Your task to perform on an android device: Go to calendar. Show me events next week Image 0: 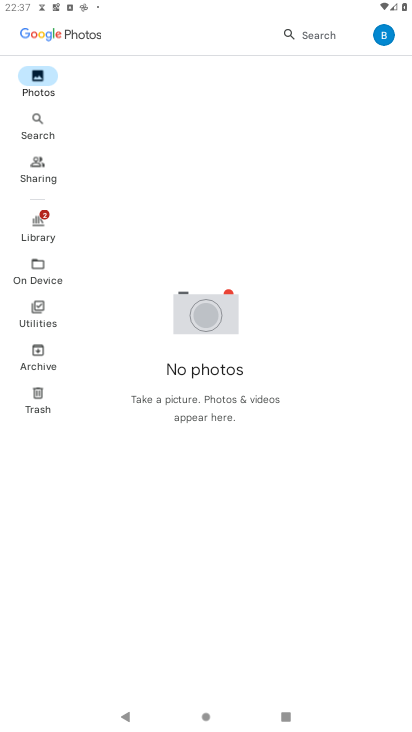
Step 0: press back button
Your task to perform on an android device: Go to calendar. Show me events next week Image 1: 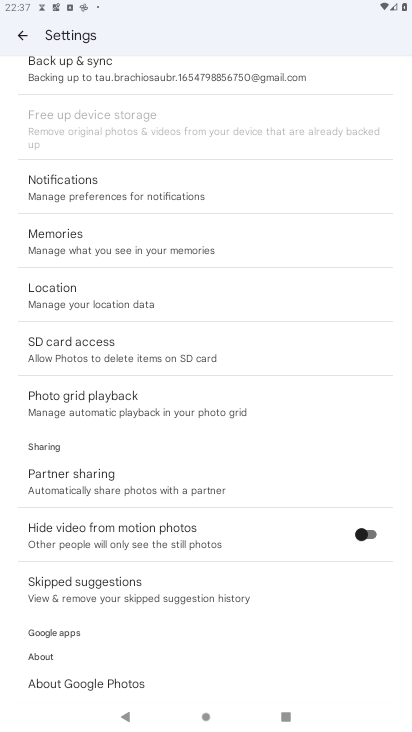
Step 1: press back button
Your task to perform on an android device: Go to calendar. Show me events next week Image 2: 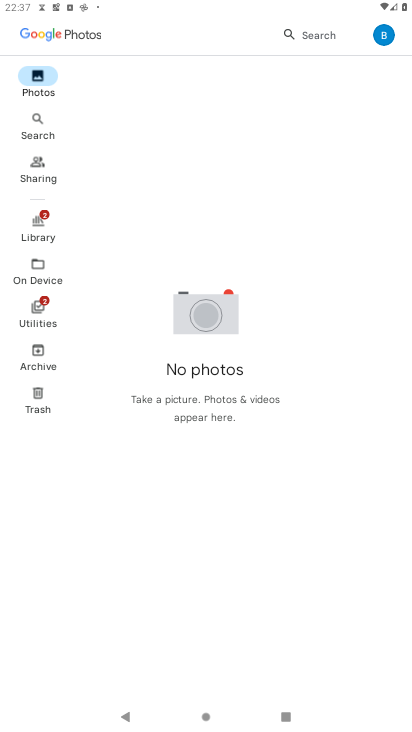
Step 2: press home button
Your task to perform on an android device: Go to calendar. Show me events next week Image 3: 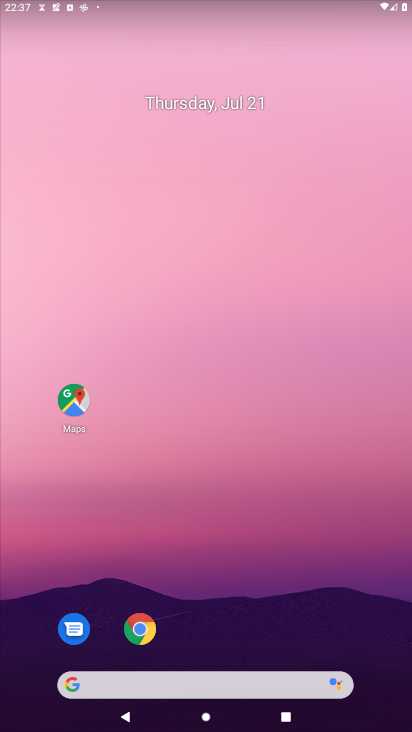
Step 3: drag from (219, 615) to (195, 121)
Your task to perform on an android device: Go to calendar. Show me events next week Image 4: 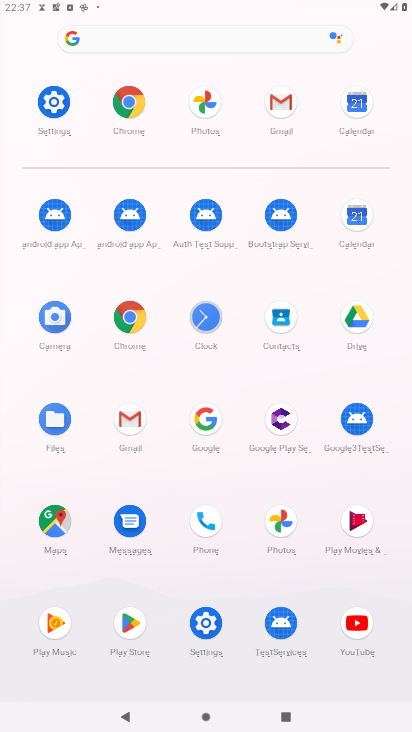
Step 4: click (362, 231)
Your task to perform on an android device: Go to calendar. Show me events next week Image 5: 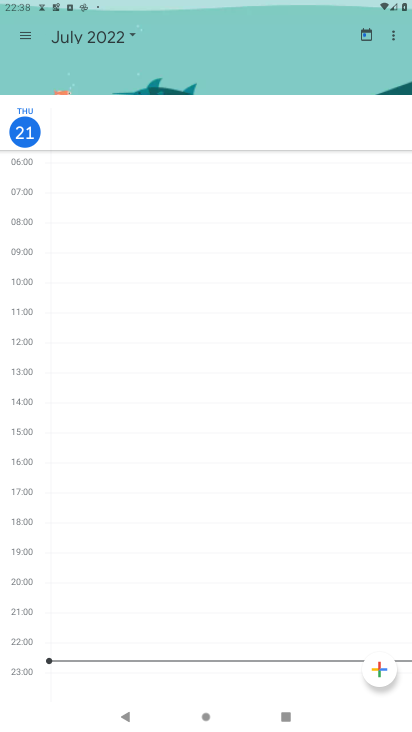
Step 5: click (98, 39)
Your task to perform on an android device: Go to calendar. Show me events next week Image 6: 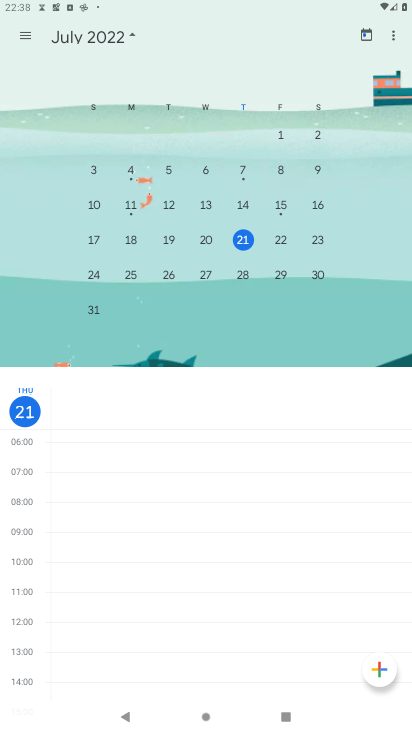
Step 6: click (91, 276)
Your task to perform on an android device: Go to calendar. Show me events next week Image 7: 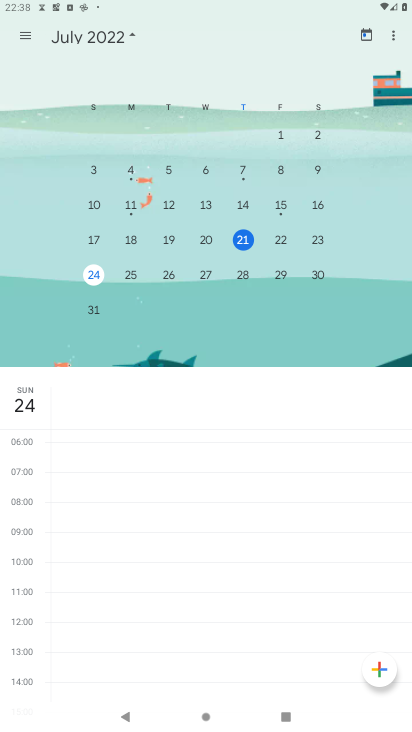
Step 7: click (111, 32)
Your task to perform on an android device: Go to calendar. Show me events next week Image 8: 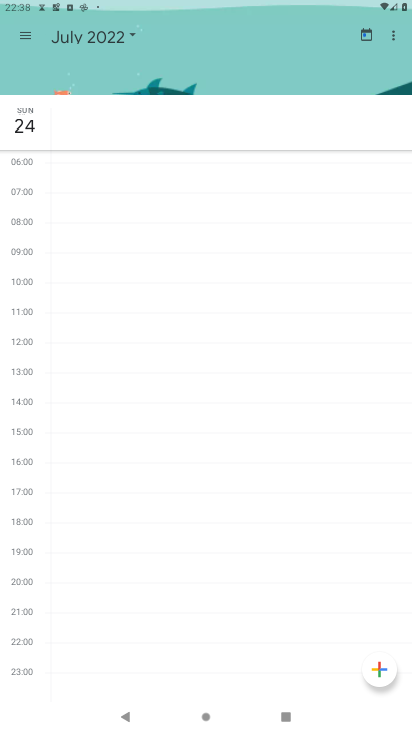
Step 8: click (16, 38)
Your task to perform on an android device: Go to calendar. Show me events next week Image 9: 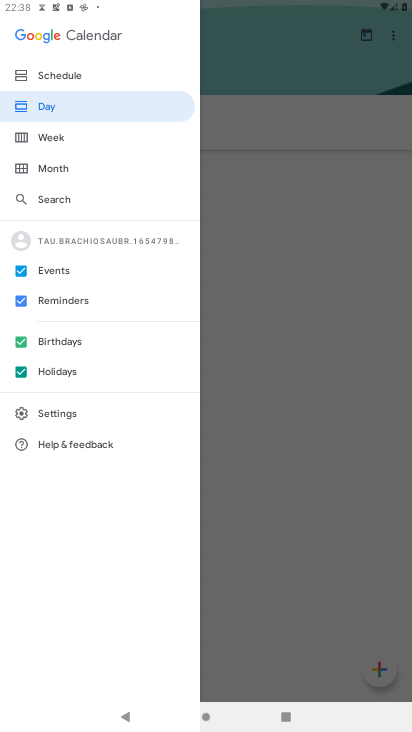
Step 9: click (75, 139)
Your task to perform on an android device: Go to calendar. Show me events next week Image 10: 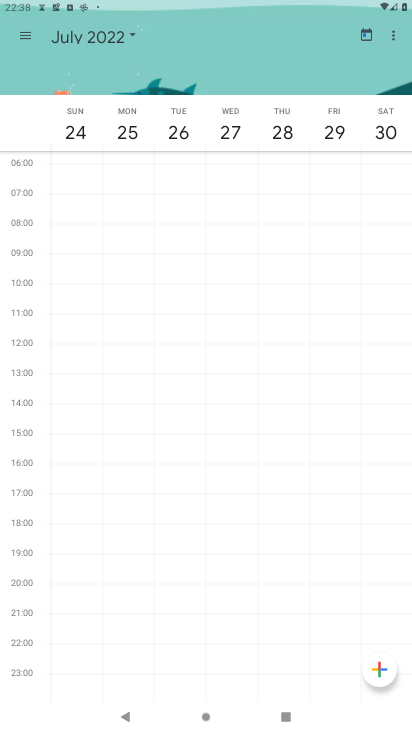
Step 10: task complete